Your task to perform on an android device: Find coffee shops on Maps Image 0: 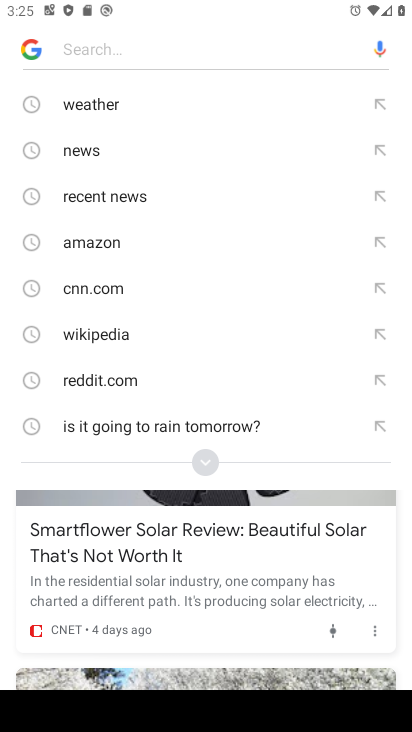
Step 0: press home button
Your task to perform on an android device: Find coffee shops on Maps Image 1: 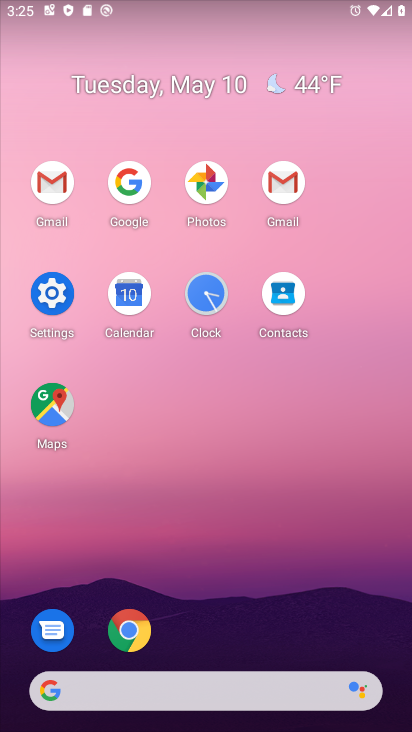
Step 1: click (56, 407)
Your task to perform on an android device: Find coffee shops on Maps Image 2: 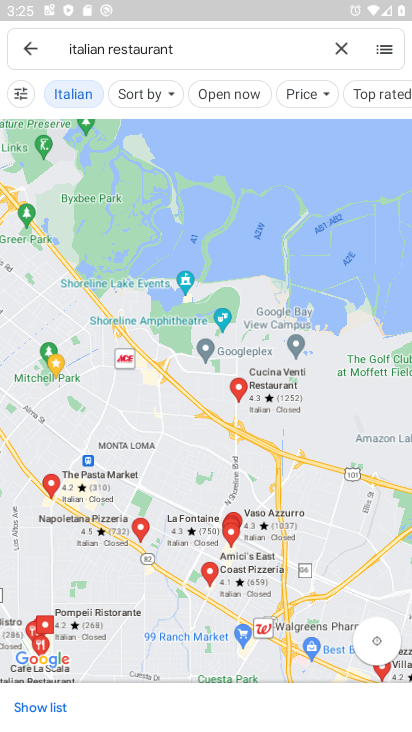
Step 2: click (343, 45)
Your task to perform on an android device: Find coffee shops on Maps Image 3: 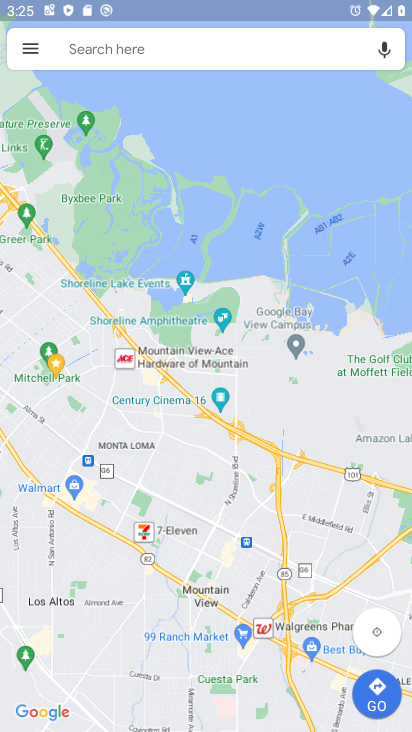
Step 3: click (186, 59)
Your task to perform on an android device: Find coffee shops on Maps Image 4: 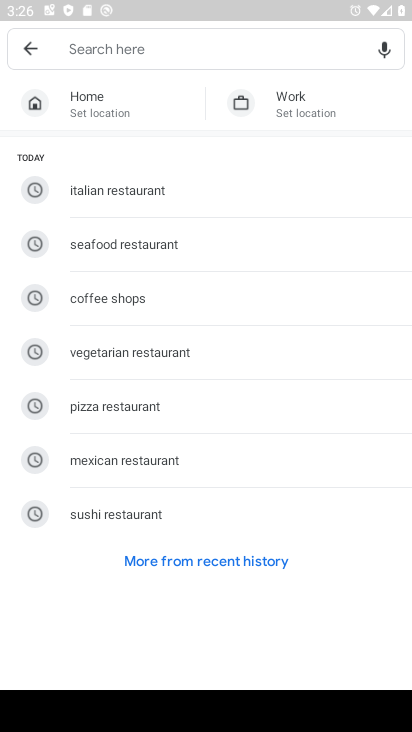
Step 4: click (198, 299)
Your task to perform on an android device: Find coffee shops on Maps Image 5: 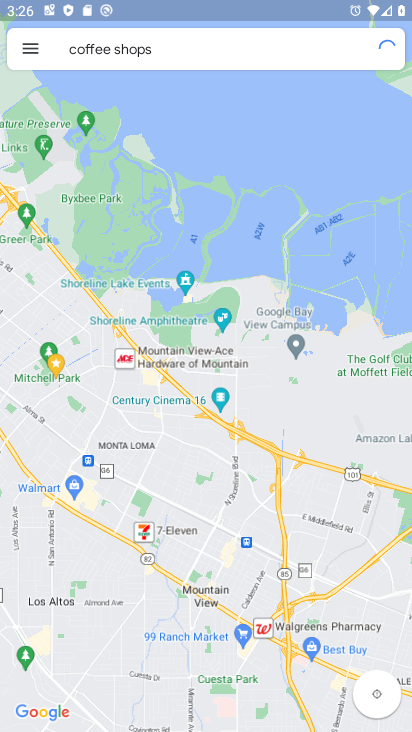
Step 5: task complete